Your task to perform on an android device: move an email to a new category in the gmail app Image 0: 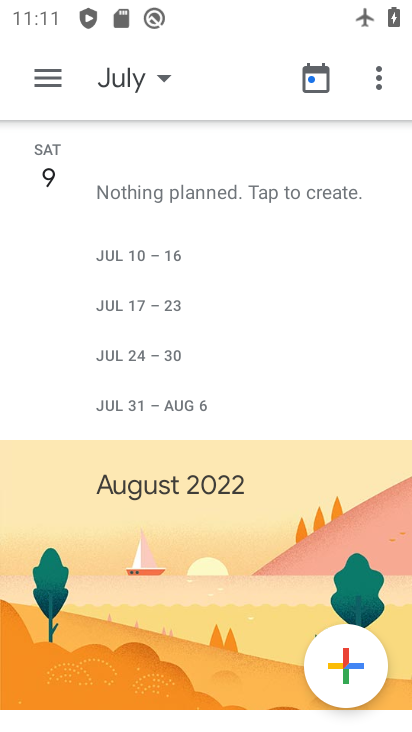
Step 0: press home button
Your task to perform on an android device: move an email to a new category in the gmail app Image 1: 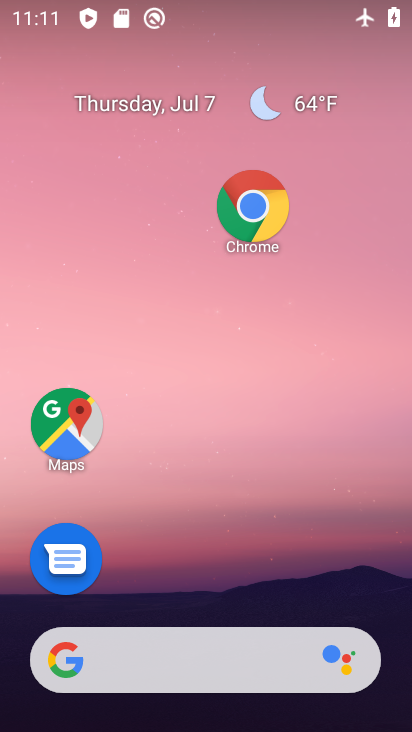
Step 1: drag from (146, 632) to (189, 118)
Your task to perform on an android device: move an email to a new category in the gmail app Image 2: 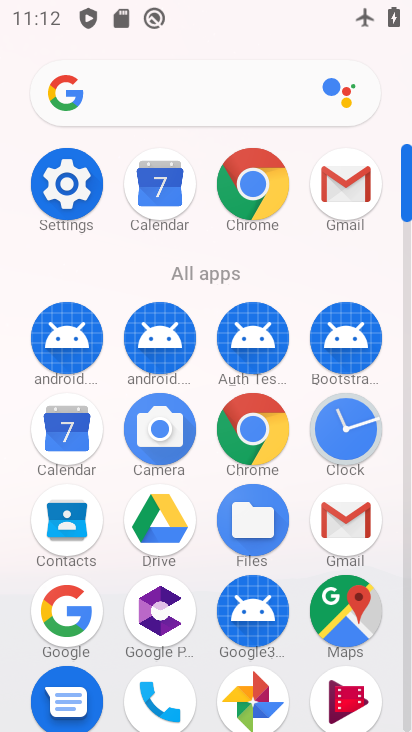
Step 2: click (347, 512)
Your task to perform on an android device: move an email to a new category in the gmail app Image 3: 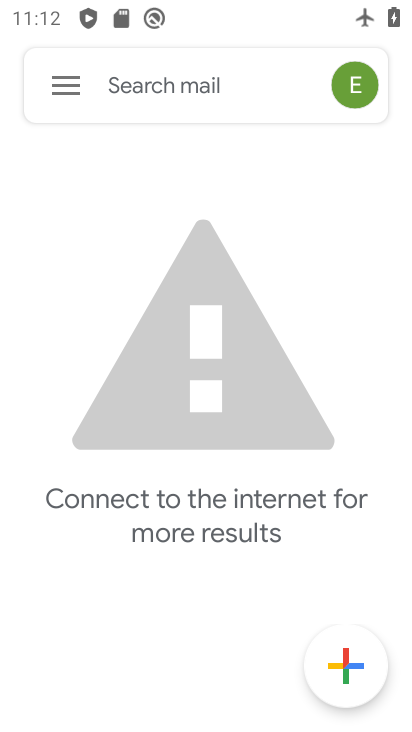
Step 3: task complete